Your task to perform on an android device: Open Google Image 0: 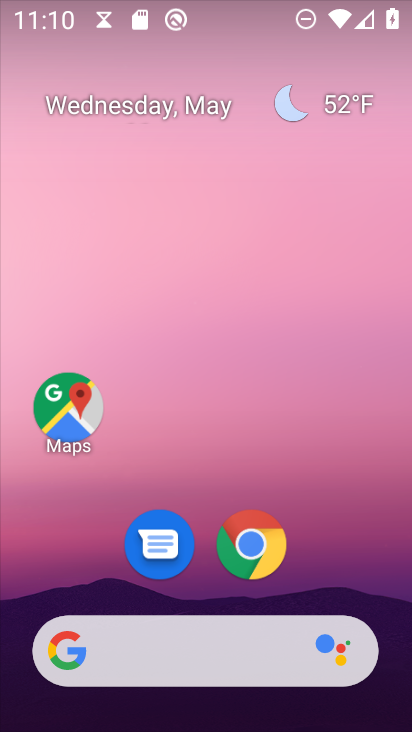
Step 0: click (157, 638)
Your task to perform on an android device: Open Google Image 1: 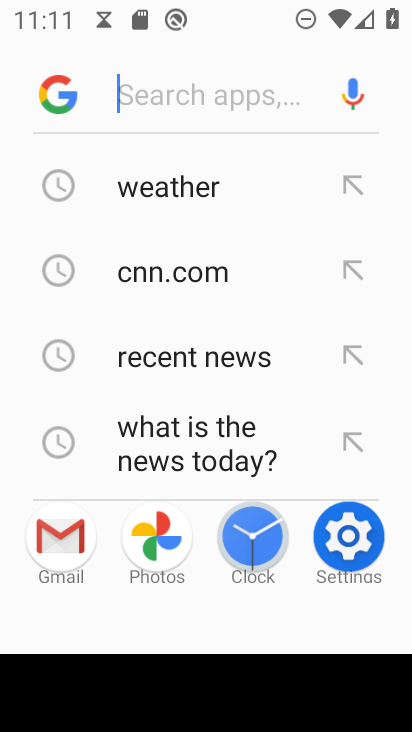
Step 1: task complete